Your task to perform on an android device: Open calendar and show me the third week of next month Image 0: 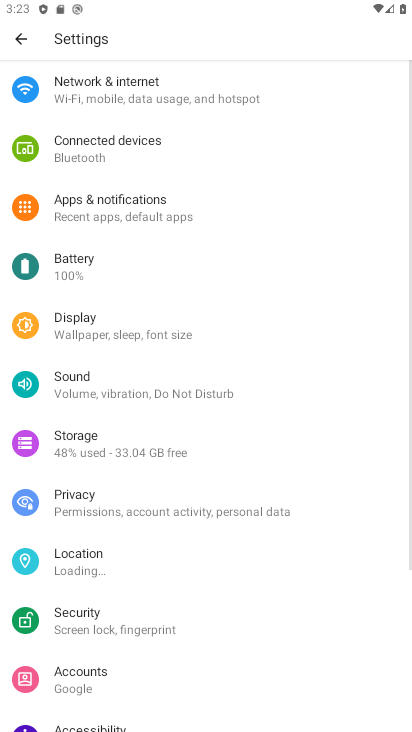
Step 0: press home button
Your task to perform on an android device: Open calendar and show me the third week of next month Image 1: 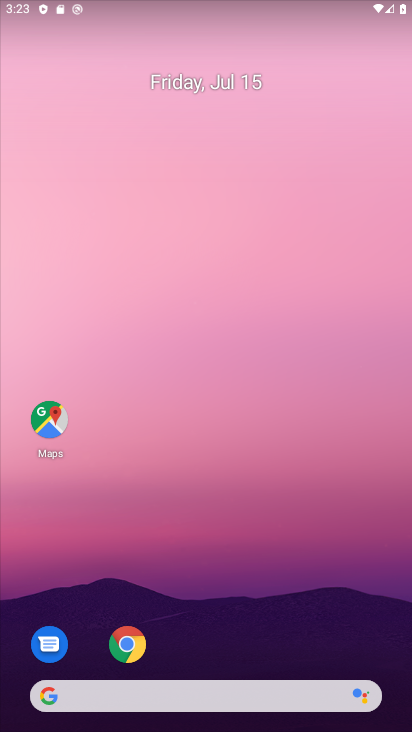
Step 1: drag from (293, 635) to (244, 113)
Your task to perform on an android device: Open calendar and show me the third week of next month Image 2: 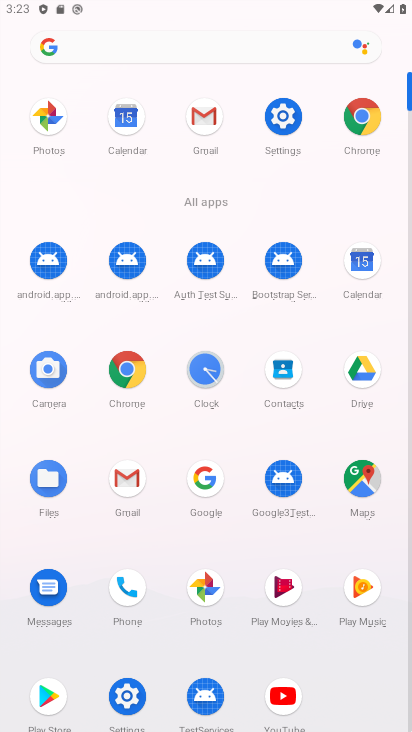
Step 2: click (365, 279)
Your task to perform on an android device: Open calendar and show me the third week of next month Image 3: 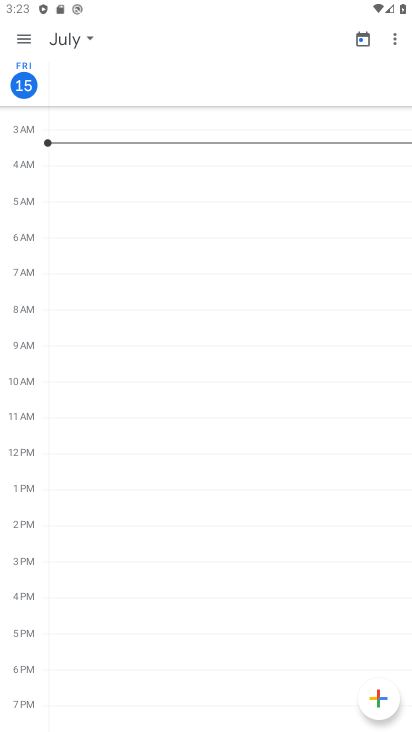
Step 3: click (72, 35)
Your task to perform on an android device: Open calendar and show me the third week of next month Image 4: 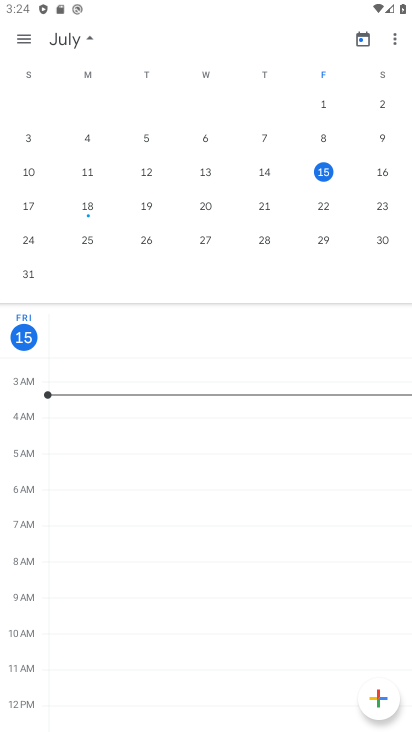
Step 4: drag from (389, 188) to (41, 179)
Your task to perform on an android device: Open calendar and show me the third week of next month Image 5: 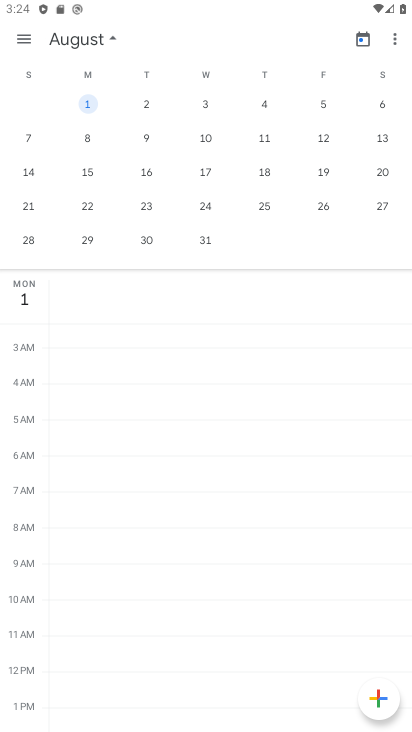
Step 5: click (202, 174)
Your task to perform on an android device: Open calendar and show me the third week of next month Image 6: 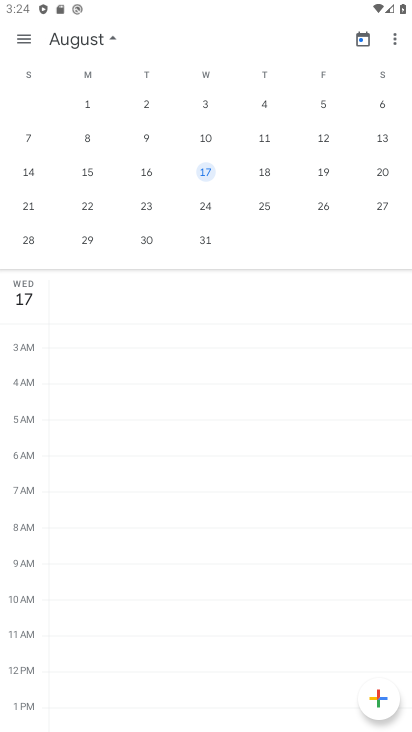
Step 6: task complete